Your task to perform on an android device: Go to settings Image 0: 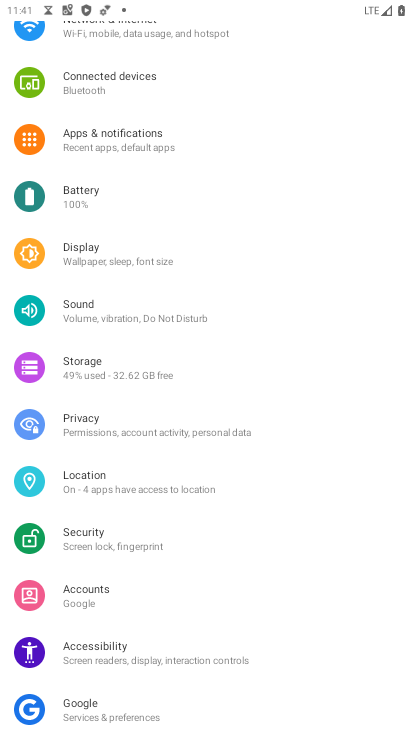
Step 0: drag from (197, 508) to (154, 116)
Your task to perform on an android device: Go to settings Image 1: 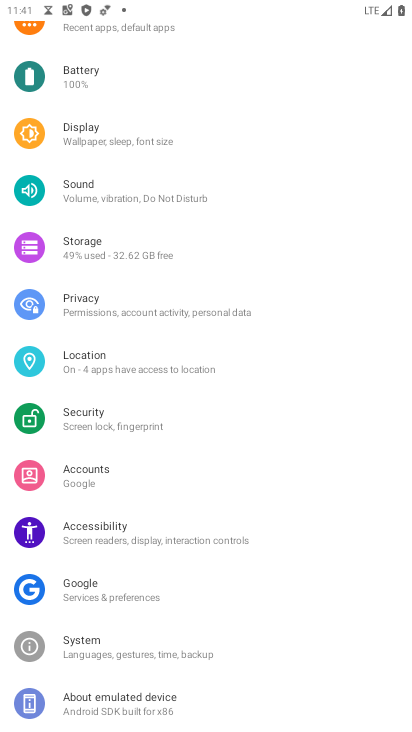
Step 1: task complete